Your task to perform on an android device: turn off notifications in google photos Image 0: 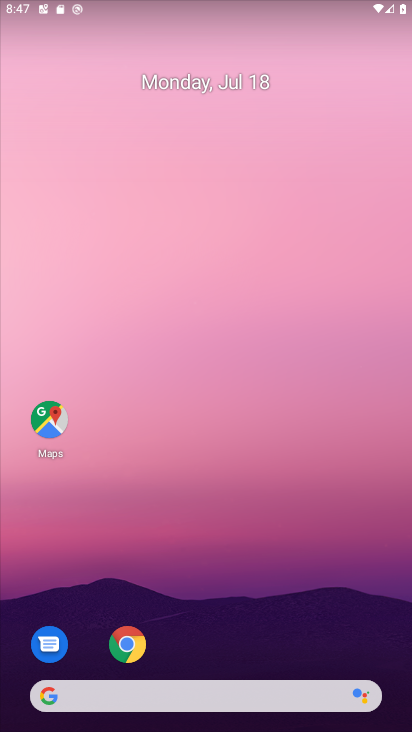
Step 0: drag from (265, 646) to (258, 280)
Your task to perform on an android device: turn off notifications in google photos Image 1: 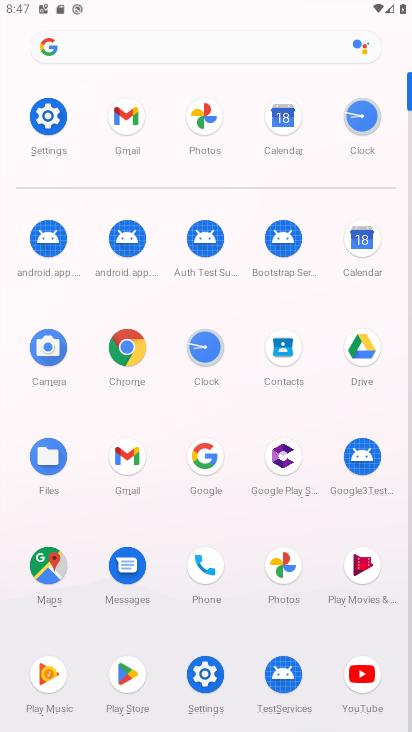
Step 1: click (211, 130)
Your task to perform on an android device: turn off notifications in google photos Image 2: 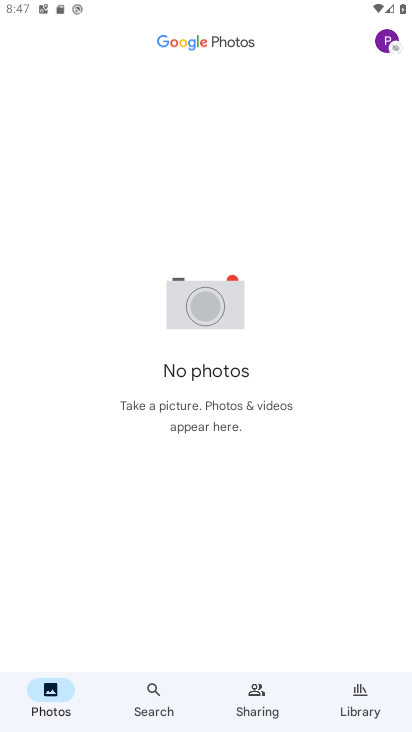
Step 2: task complete